Your task to perform on an android device: Search for Italian restaurants on Maps Image 0: 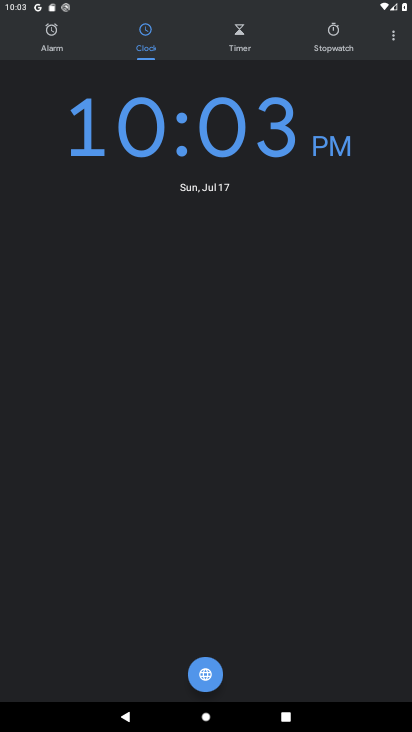
Step 0: press home button
Your task to perform on an android device: Search for Italian restaurants on Maps Image 1: 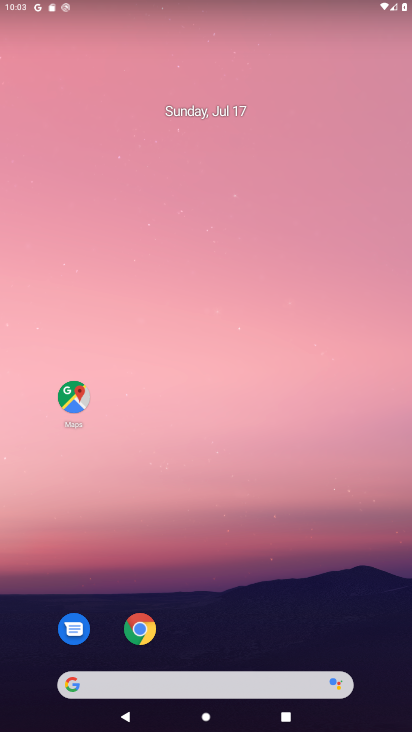
Step 1: click (74, 395)
Your task to perform on an android device: Search for Italian restaurants on Maps Image 2: 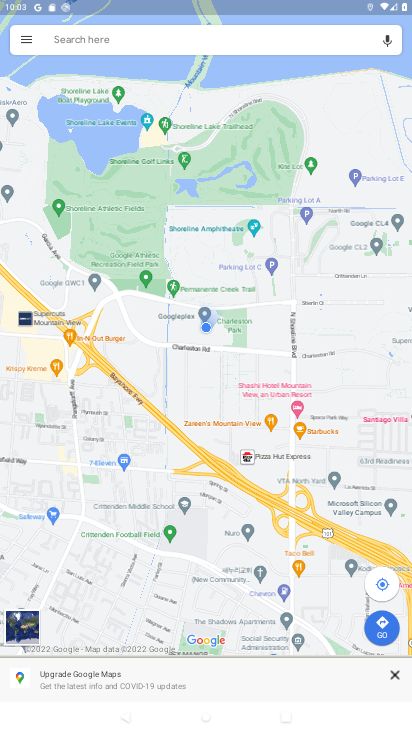
Step 2: click (217, 42)
Your task to perform on an android device: Search for Italian restaurants on Maps Image 3: 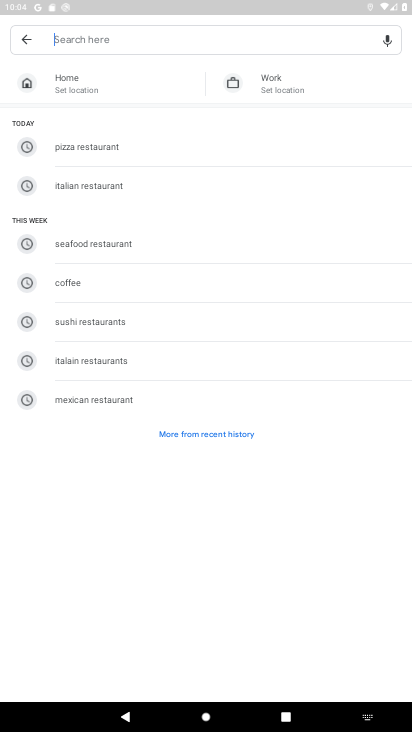
Step 3: type "Italian restaurants"
Your task to perform on an android device: Search for Italian restaurants on Maps Image 4: 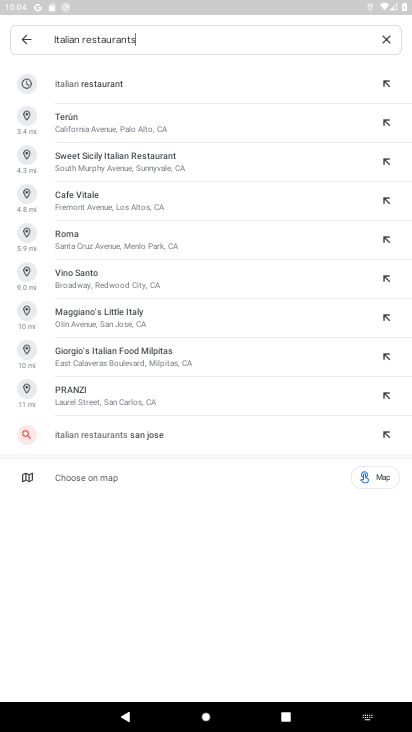
Step 4: click (119, 85)
Your task to perform on an android device: Search for Italian restaurants on Maps Image 5: 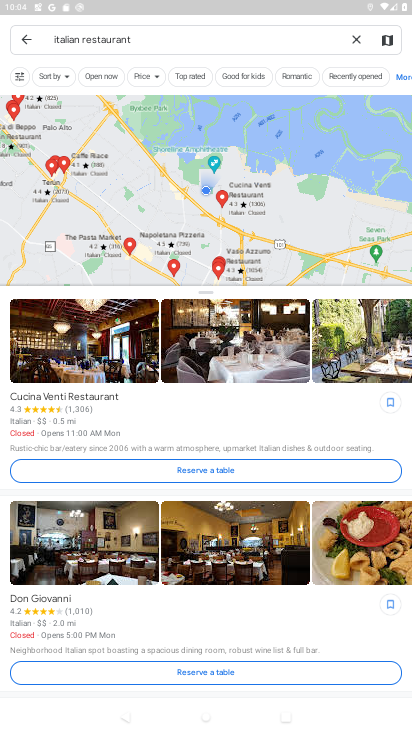
Step 5: task complete